Your task to perform on an android device: What's on my calendar tomorrow? Image 0: 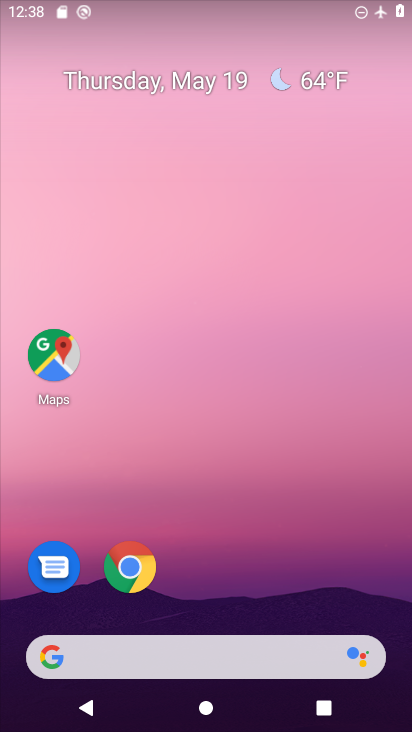
Step 0: drag from (227, 572) to (276, 97)
Your task to perform on an android device: What's on my calendar tomorrow? Image 1: 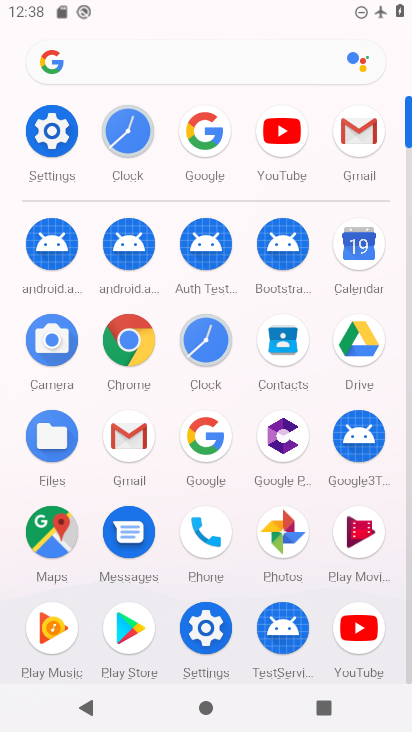
Step 1: click (358, 262)
Your task to perform on an android device: What's on my calendar tomorrow? Image 2: 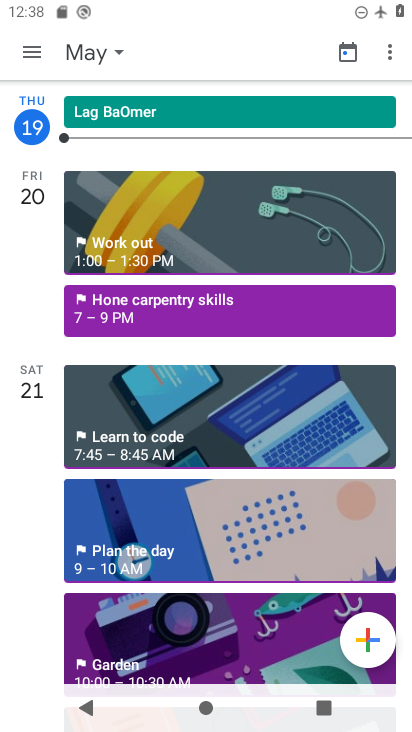
Step 2: click (94, 46)
Your task to perform on an android device: What's on my calendar tomorrow? Image 3: 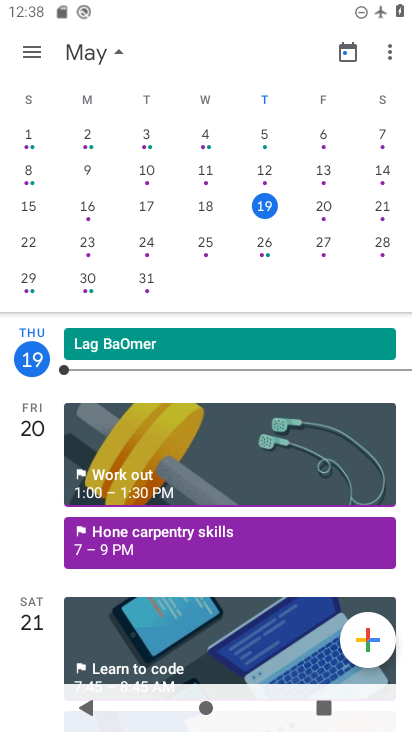
Step 3: click (320, 211)
Your task to perform on an android device: What's on my calendar tomorrow? Image 4: 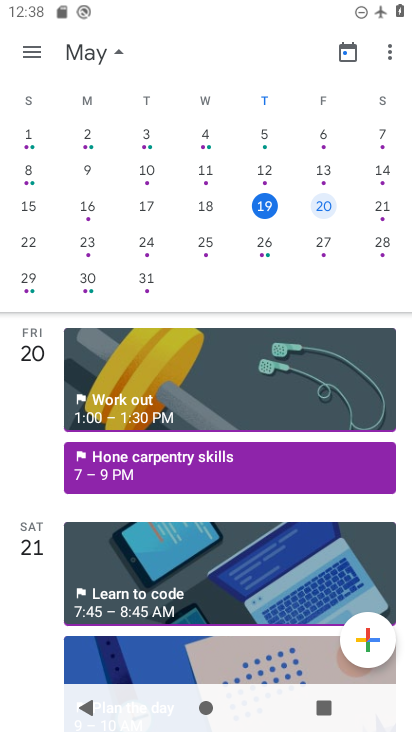
Step 4: task complete